Your task to perform on an android device: change the clock display to analog Image 0: 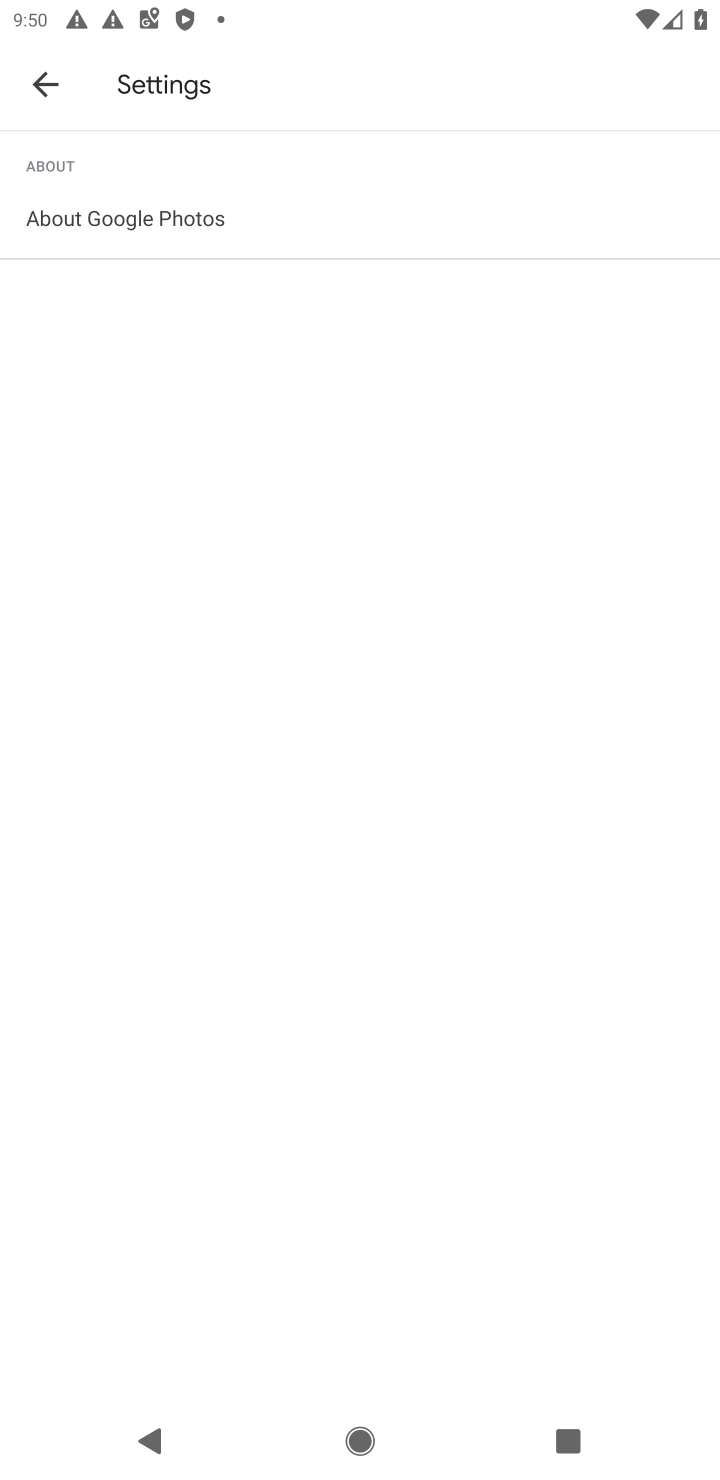
Step 0: press home button
Your task to perform on an android device: change the clock display to analog Image 1: 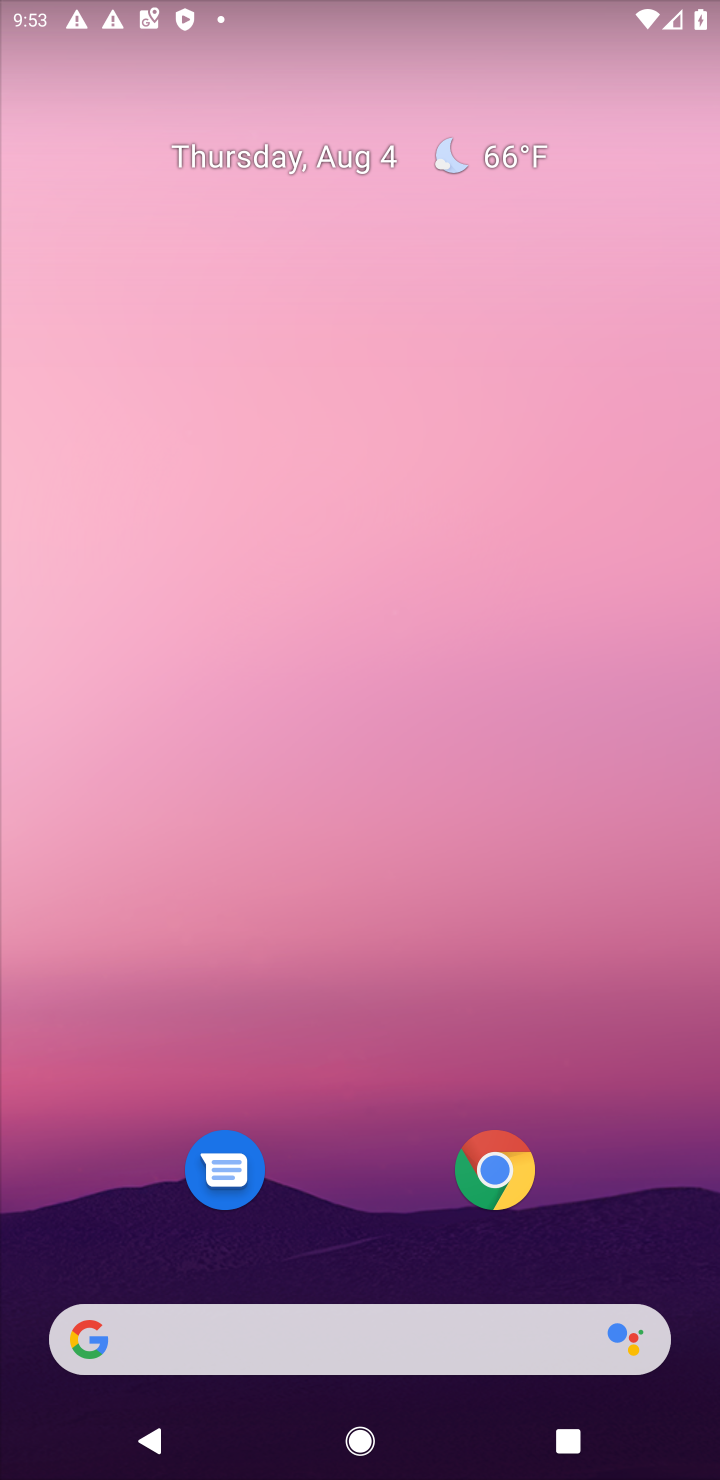
Step 1: drag from (338, 916) to (144, 2)
Your task to perform on an android device: change the clock display to analog Image 2: 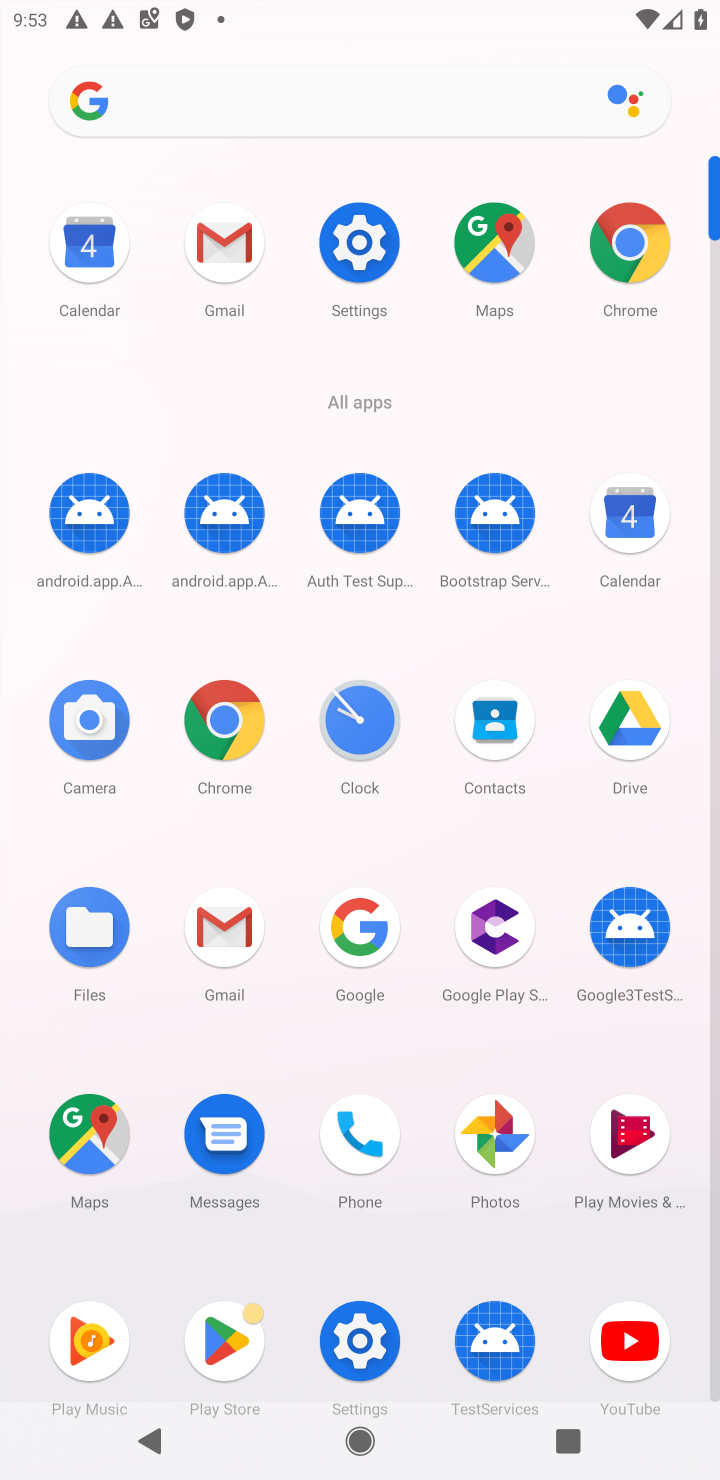
Step 2: click (349, 716)
Your task to perform on an android device: change the clock display to analog Image 3: 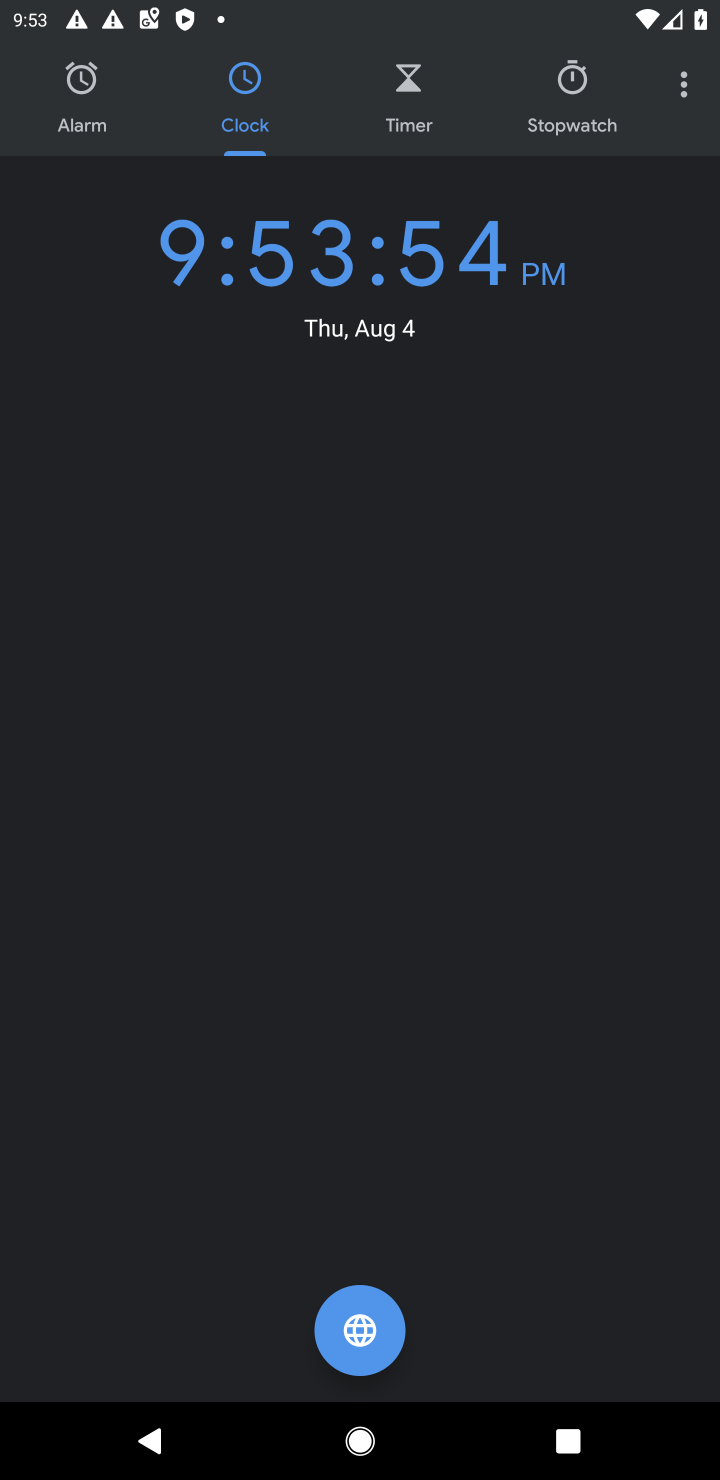
Step 3: click (675, 84)
Your task to perform on an android device: change the clock display to analog Image 4: 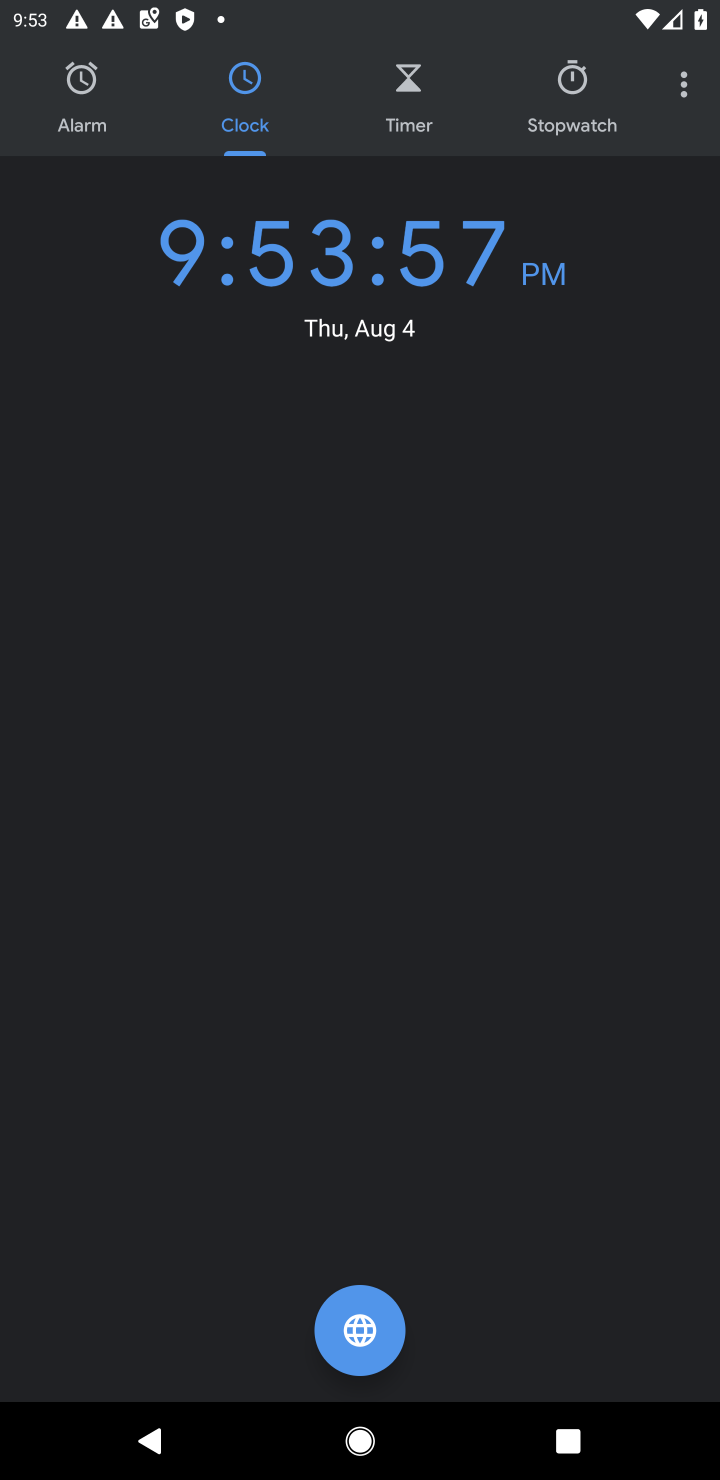
Step 4: click (679, 83)
Your task to perform on an android device: change the clock display to analog Image 5: 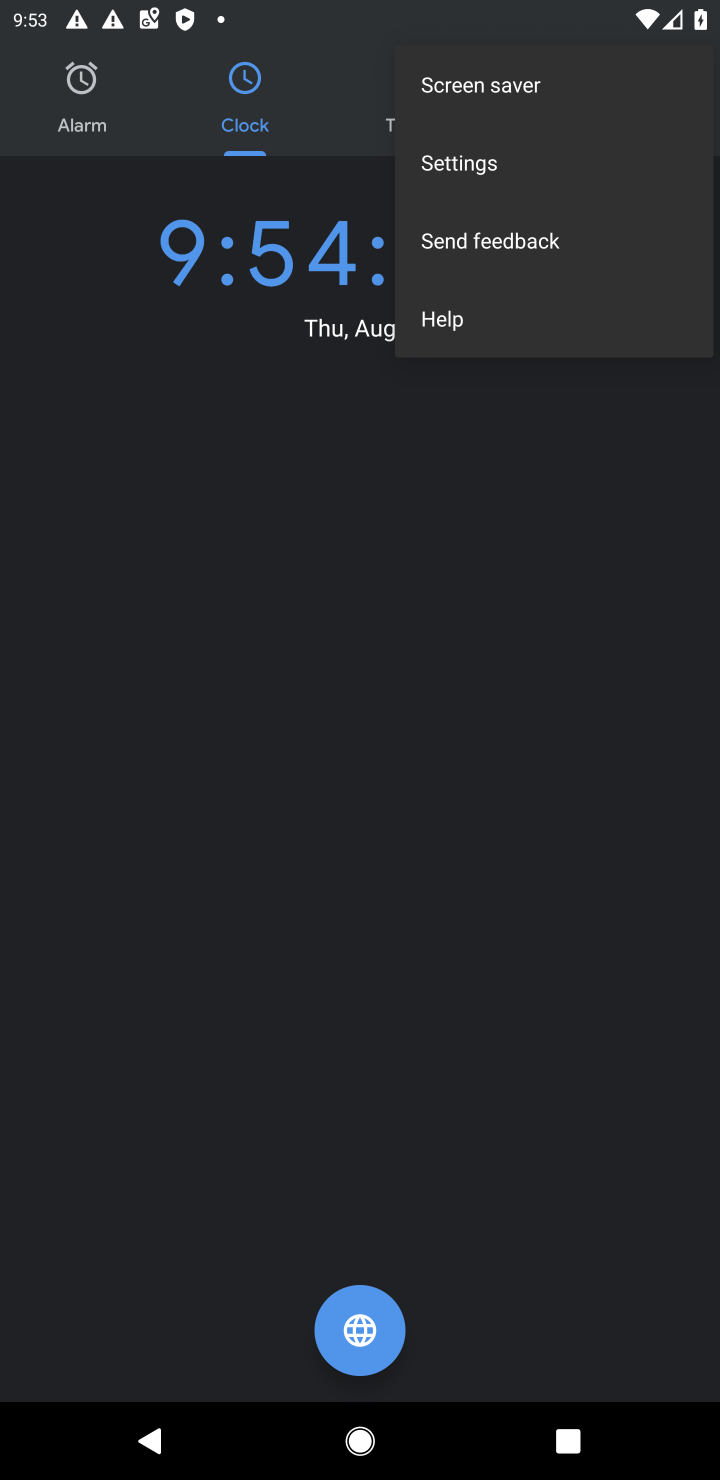
Step 5: click (433, 177)
Your task to perform on an android device: change the clock display to analog Image 6: 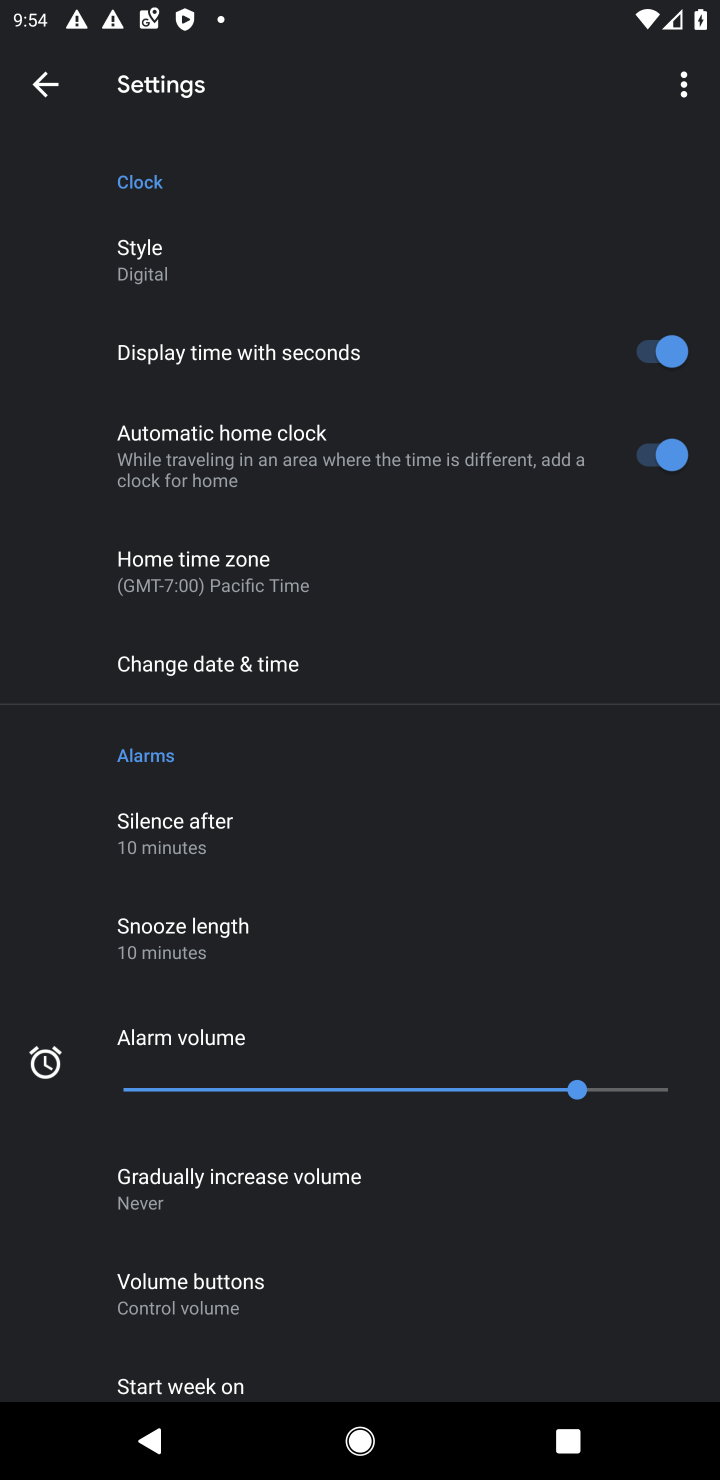
Step 6: click (139, 282)
Your task to perform on an android device: change the clock display to analog Image 7: 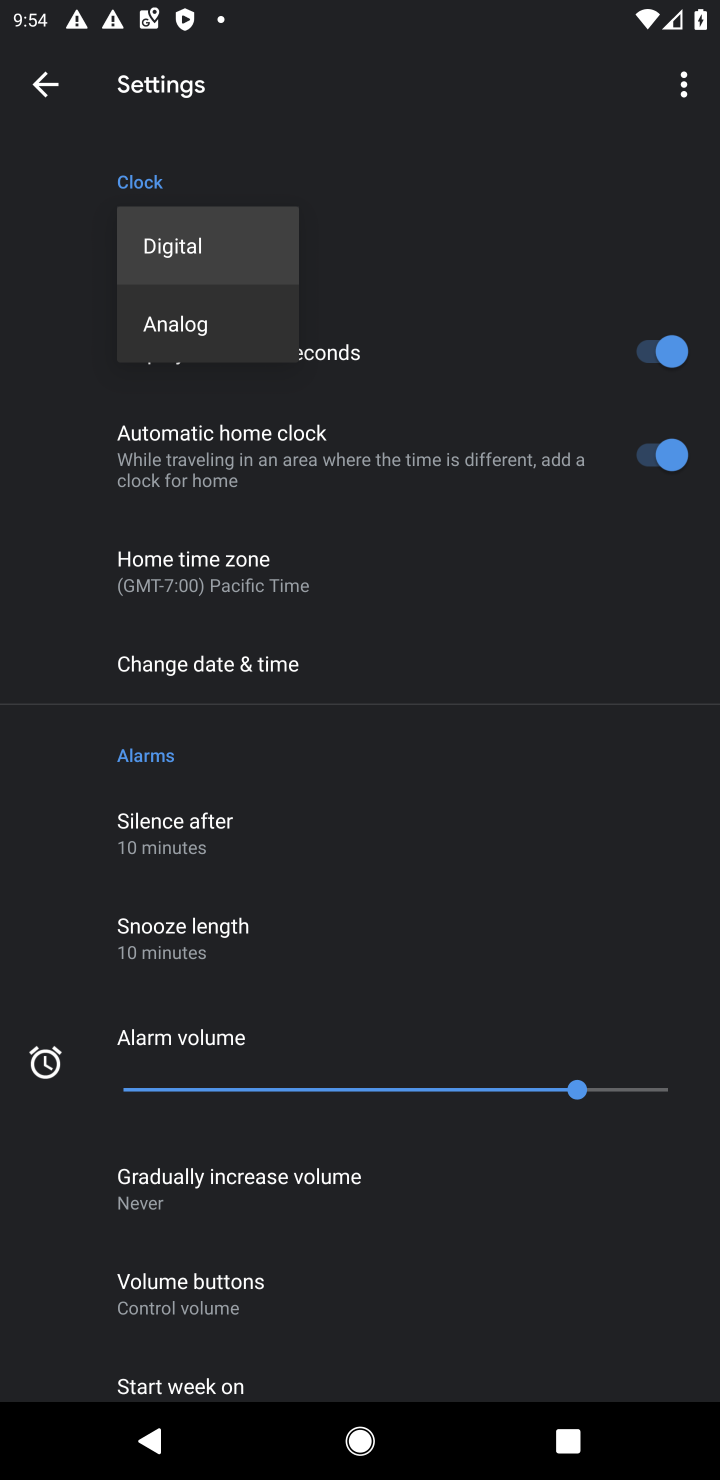
Step 7: click (191, 332)
Your task to perform on an android device: change the clock display to analog Image 8: 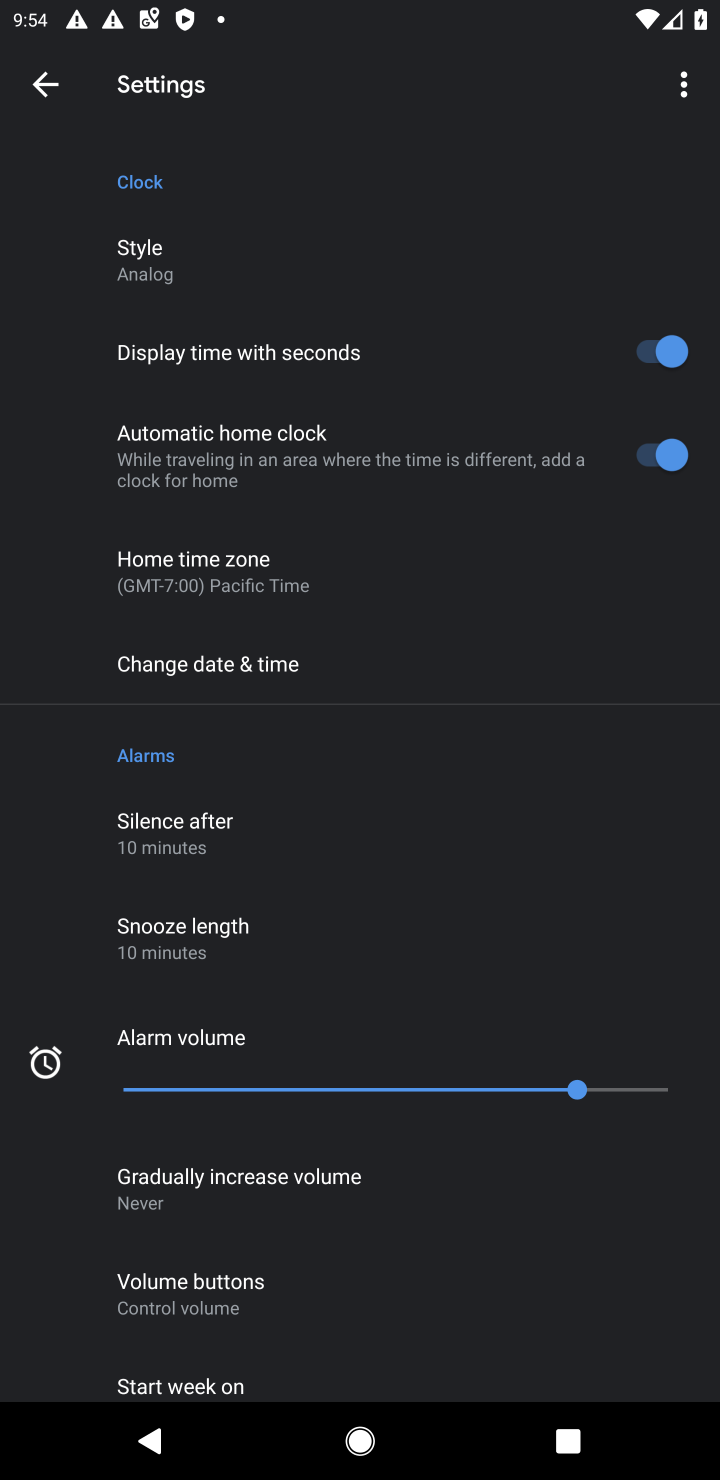
Step 8: task complete